Your task to perform on an android device: all mails in gmail Image 0: 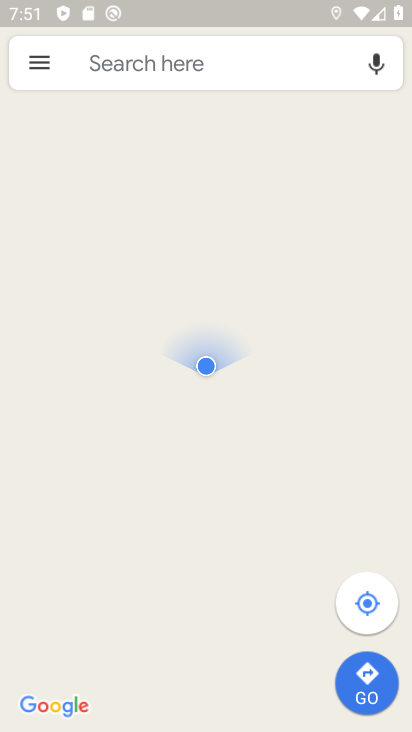
Step 0: press home button
Your task to perform on an android device: all mails in gmail Image 1: 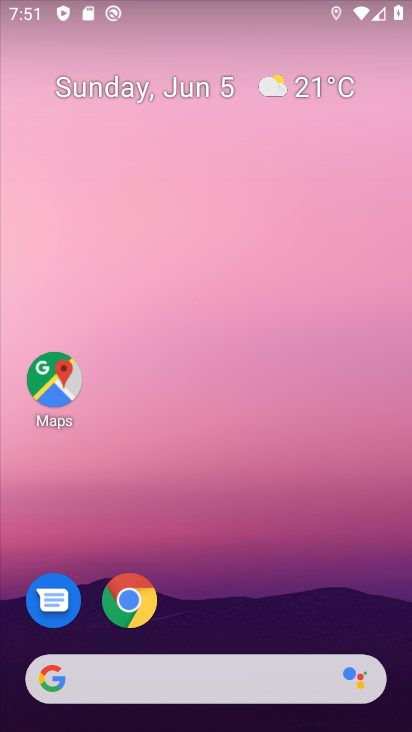
Step 1: drag from (277, 543) to (210, 5)
Your task to perform on an android device: all mails in gmail Image 2: 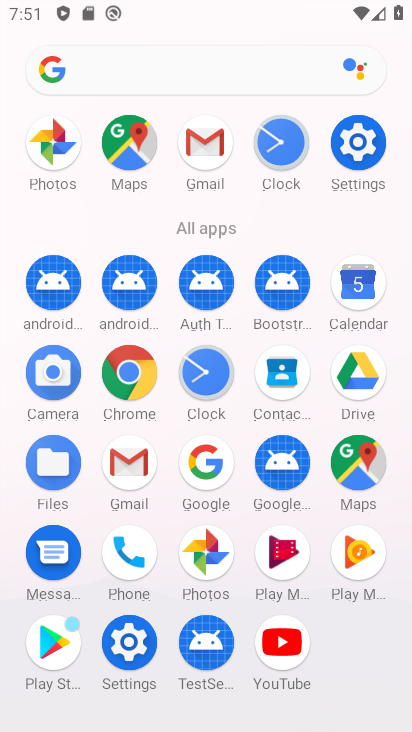
Step 2: click (118, 463)
Your task to perform on an android device: all mails in gmail Image 3: 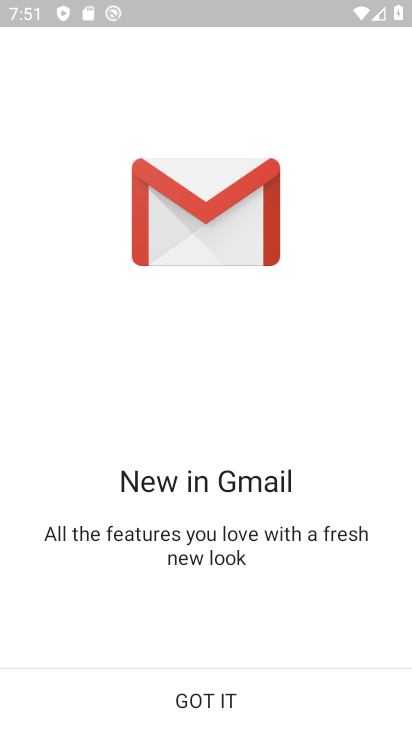
Step 3: click (209, 685)
Your task to perform on an android device: all mails in gmail Image 4: 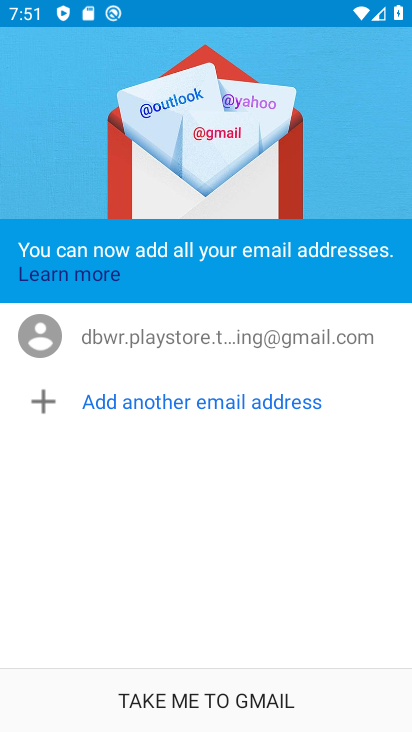
Step 4: click (210, 686)
Your task to perform on an android device: all mails in gmail Image 5: 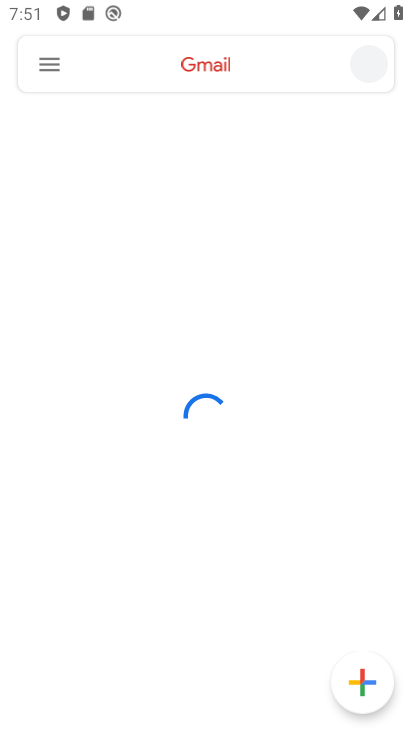
Step 5: click (48, 65)
Your task to perform on an android device: all mails in gmail Image 6: 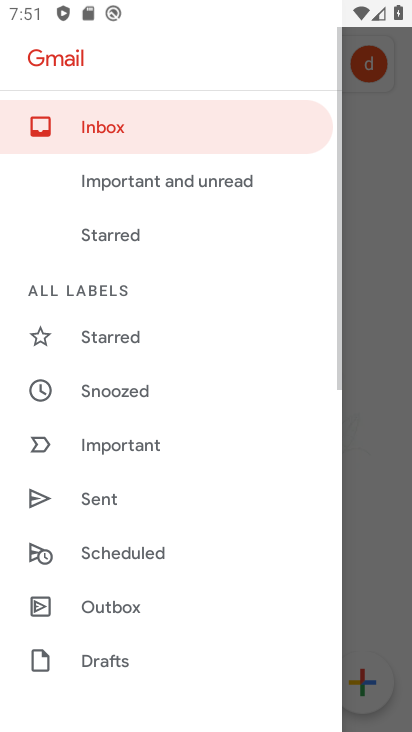
Step 6: drag from (135, 528) to (77, 201)
Your task to perform on an android device: all mails in gmail Image 7: 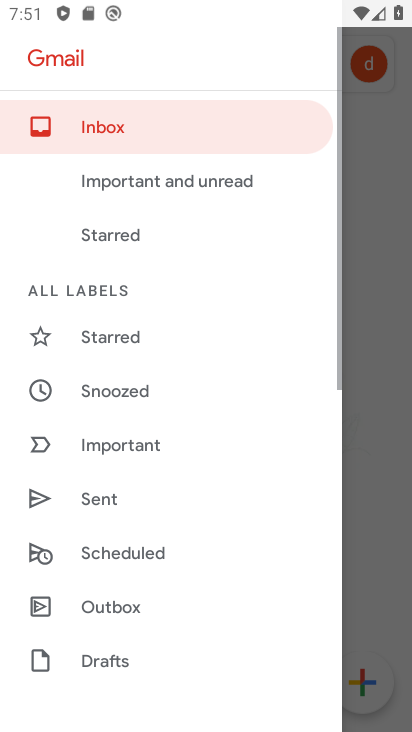
Step 7: drag from (80, 644) to (101, 183)
Your task to perform on an android device: all mails in gmail Image 8: 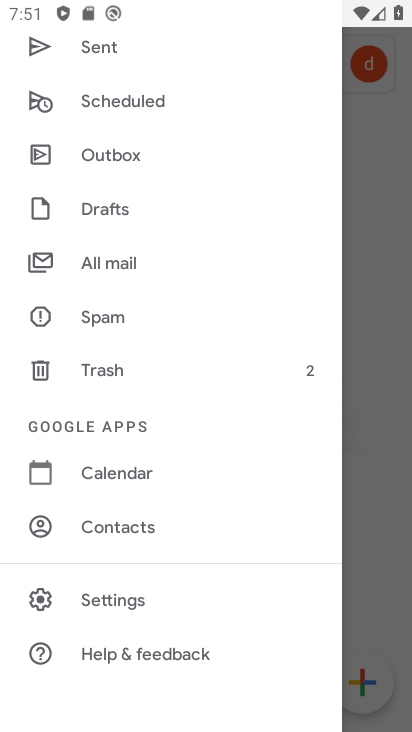
Step 8: click (127, 250)
Your task to perform on an android device: all mails in gmail Image 9: 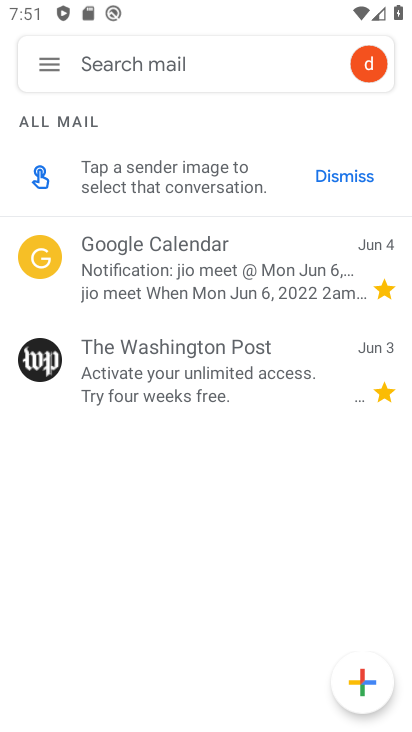
Step 9: task complete